Your task to perform on an android device: Go to network settings Image 0: 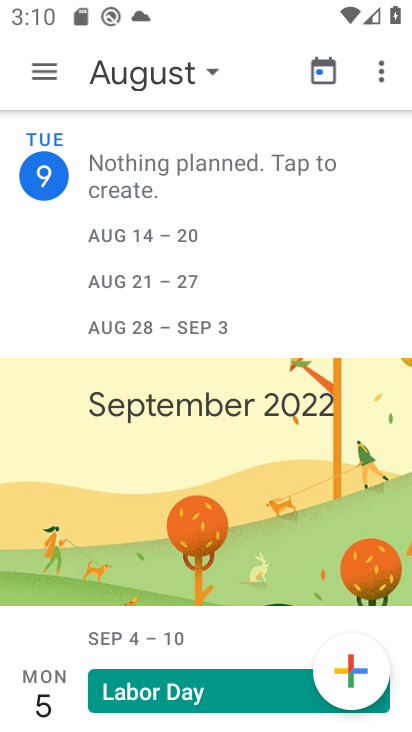
Step 0: press home button
Your task to perform on an android device: Go to network settings Image 1: 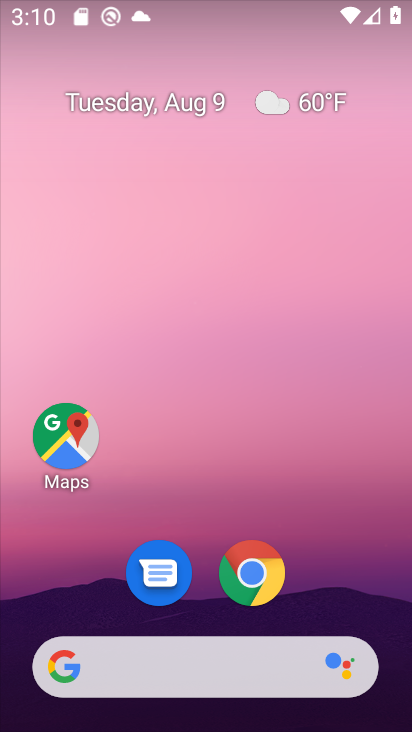
Step 1: drag from (320, 604) to (175, 2)
Your task to perform on an android device: Go to network settings Image 2: 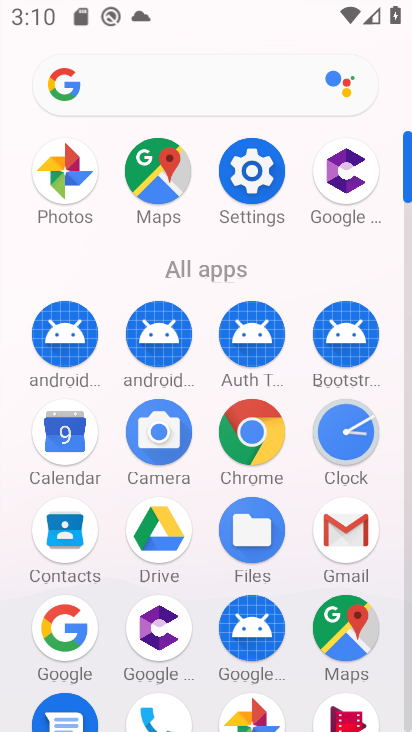
Step 2: click (252, 175)
Your task to perform on an android device: Go to network settings Image 3: 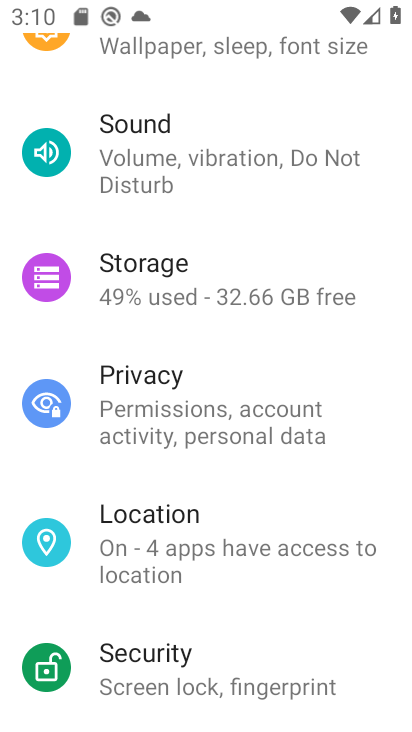
Step 3: drag from (241, 105) to (411, 632)
Your task to perform on an android device: Go to network settings Image 4: 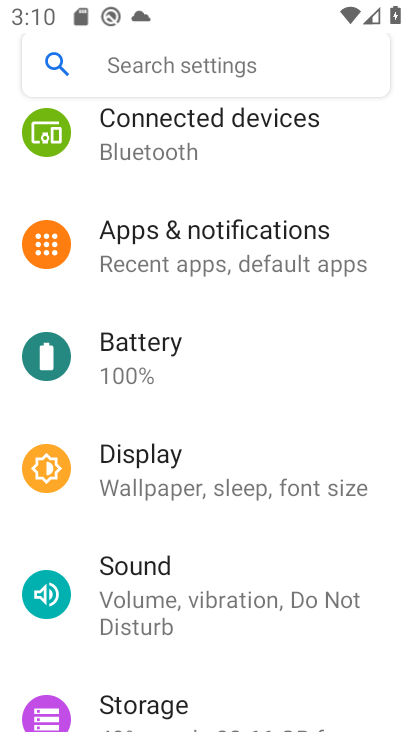
Step 4: drag from (317, 169) to (399, 727)
Your task to perform on an android device: Go to network settings Image 5: 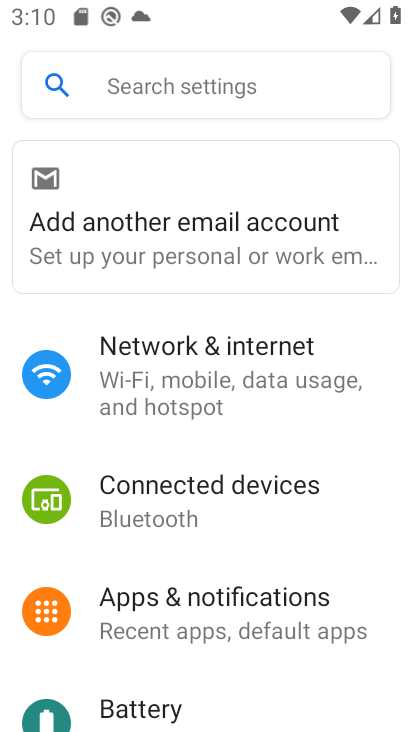
Step 5: click (270, 384)
Your task to perform on an android device: Go to network settings Image 6: 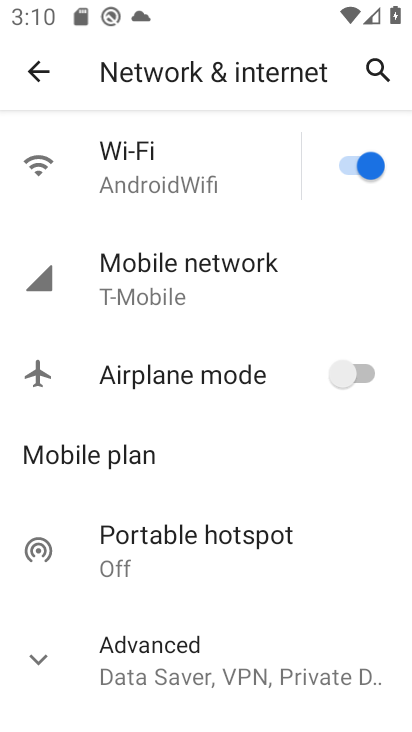
Step 6: task complete